Your task to perform on an android device: Do I have any events this weekend? Image 0: 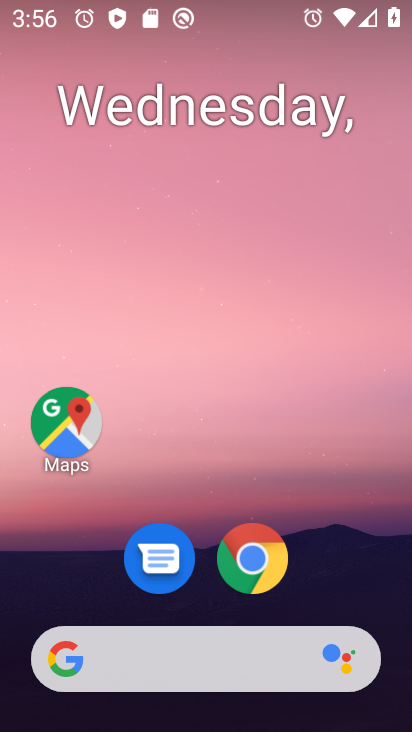
Step 0: drag from (189, 540) to (182, 279)
Your task to perform on an android device: Do I have any events this weekend? Image 1: 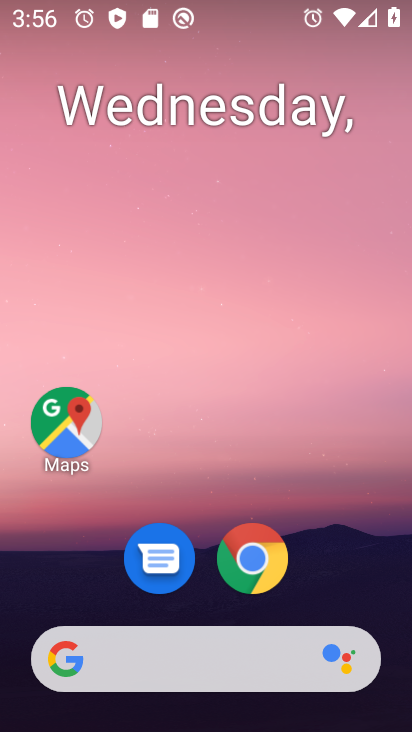
Step 1: drag from (205, 611) to (205, 109)
Your task to perform on an android device: Do I have any events this weekend? Image 2: 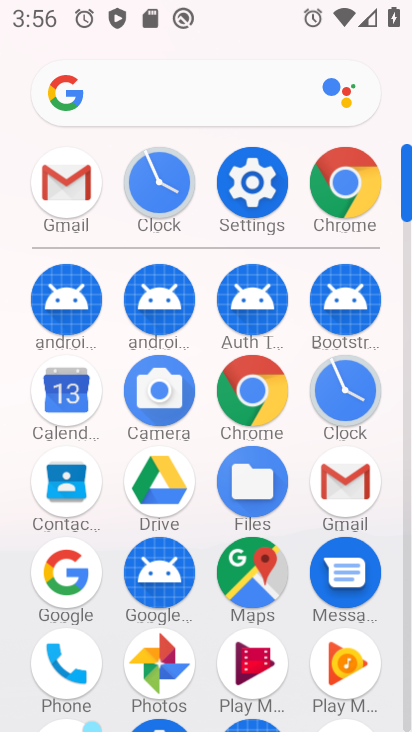
Step 2: click (54, 399)
Your task to perform on an android device: Do I have any events this weekend? Image 3: 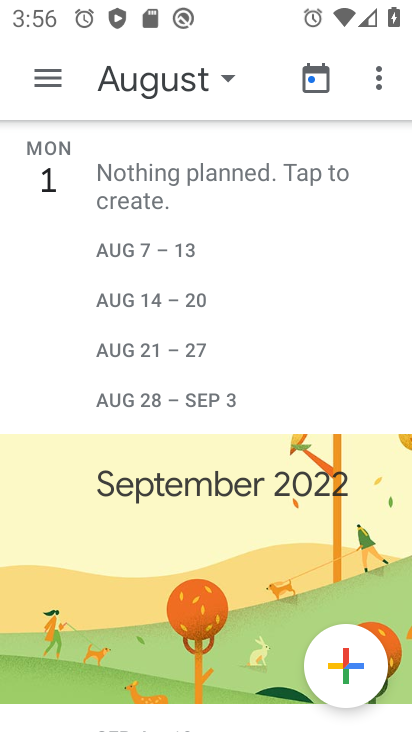
Step 3: click (169, 81)
Your task to perform on an android device: Do I have any events this weekend? Image 4: 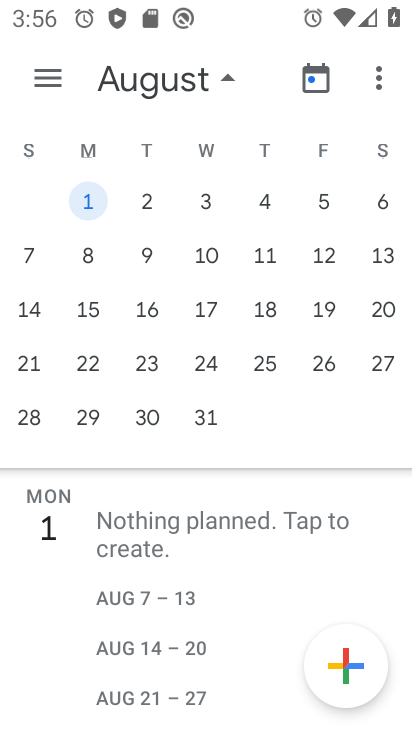
Step 4: drag from (63, 297) to (398, 353)
Your task to perform on an android device: Do I have any events this weekend? Image 5: 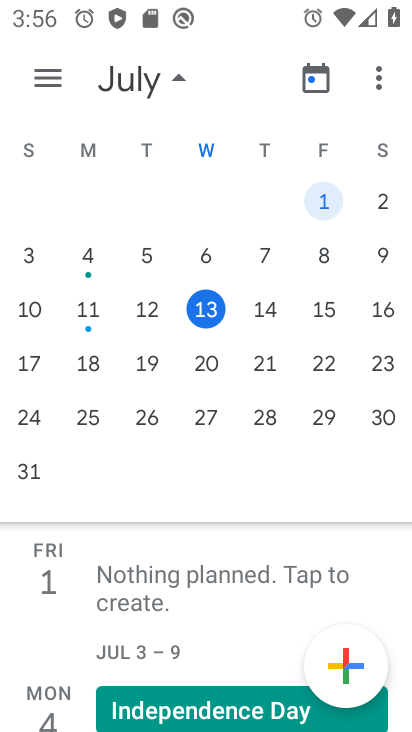
Step 5: click (326, 301)
Your task to perform on an android device: Do I have any events this weekend? Image 6: 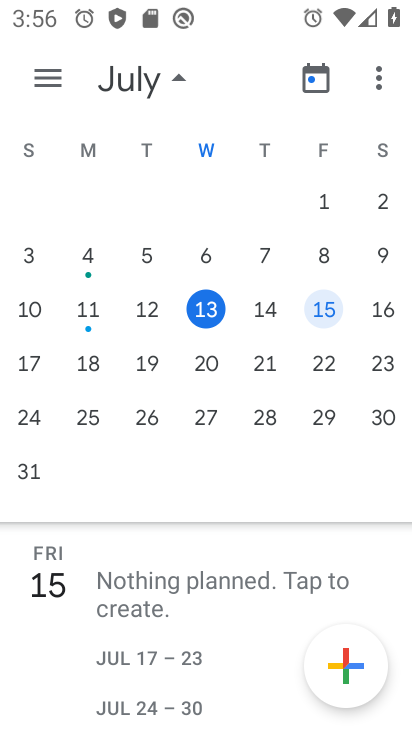
Step 6: task complete